Your task to perform on an android device: Search for "razer huntsman" on walmart.com, select the first entry, add it to the cart, then select checkout. Image 0: 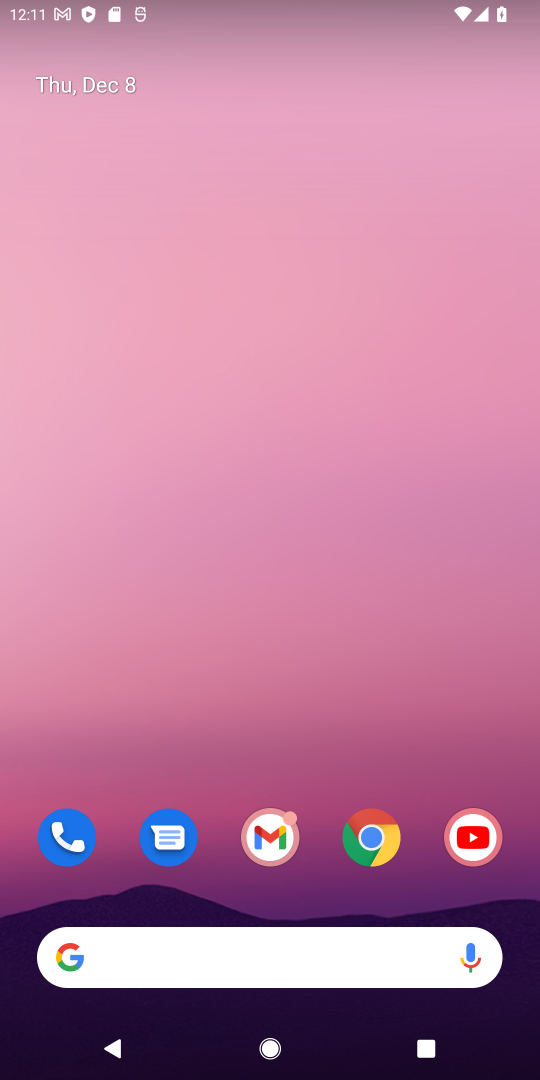
Step 0: click (366, 840)
Your task to perform on an android device: Search for "razer huntsman" on walmart.com, select the first entry, add it to the cart, then select checkout. Image 1: 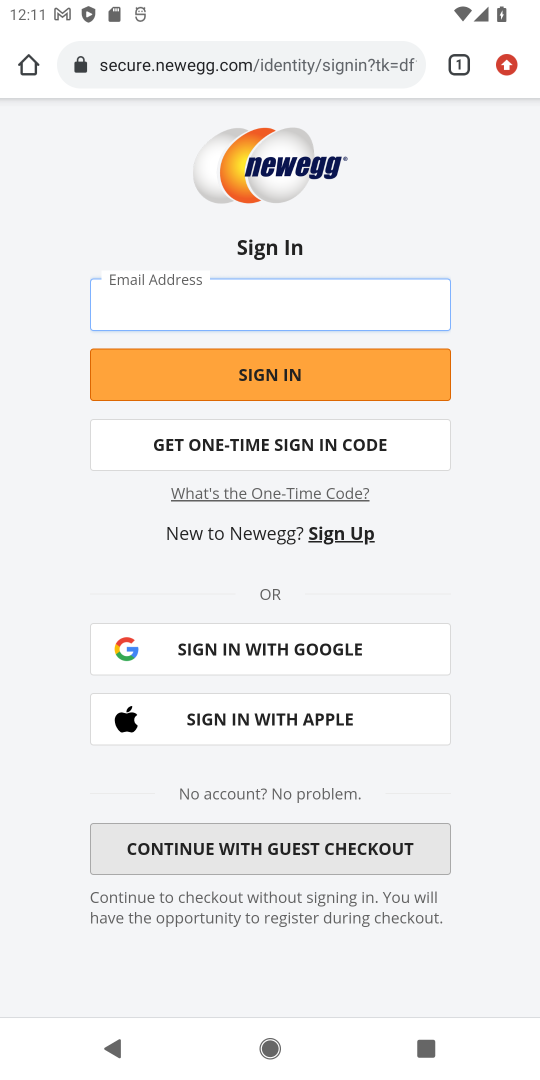
Step 1: click (129, 73)
Your task to perform on an android device: Search for "razer huntsman" on walmart.com, select the first entry, add it to the cart, then select checkout. Image 2: 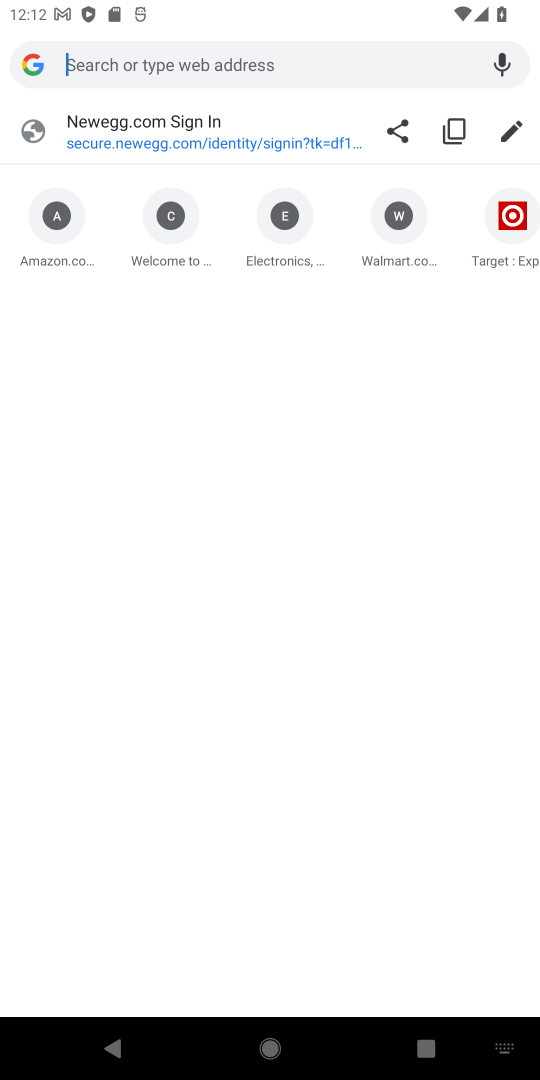
Step 2: type "walmart"
Your task to perform on an android device: Search for "razer huntsman" on walmart.com, select the first entry, add it to the cart, then select checkout. Image 3: 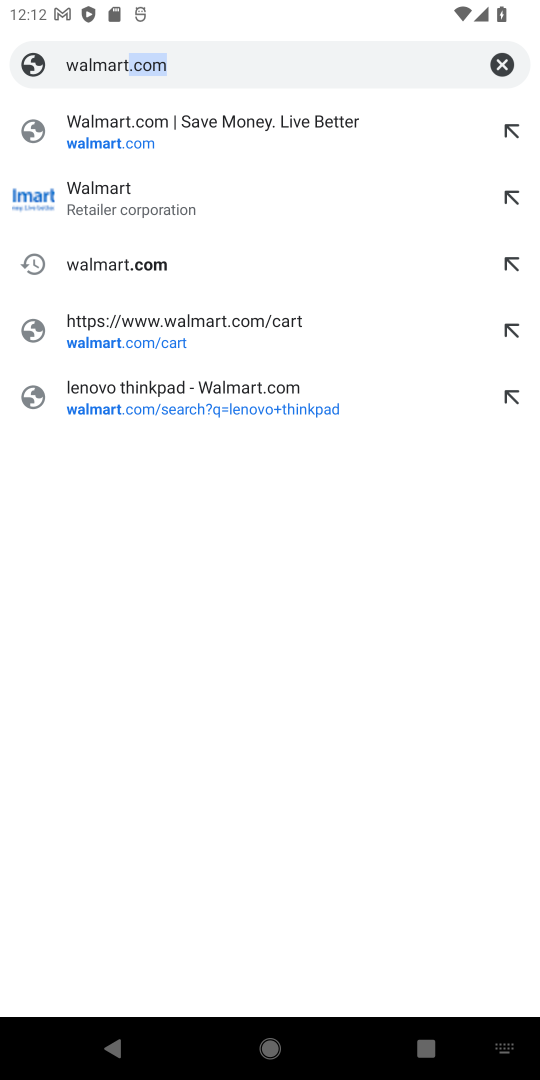
Step 3: press enter
Your task to perform on an android device: Search for "razer huntsman" on walmart.com, select the first entry, add it to the cart, then select checkout. Image 4: 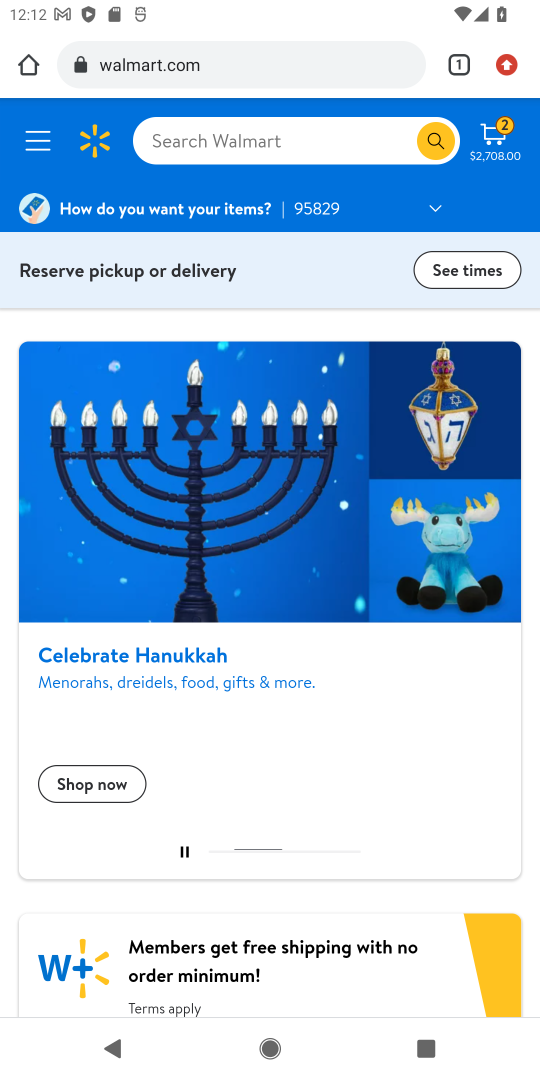
Step 4: click (233, 125)
Your task to perform on an android device: Search for "razer huntsman" on walmart.com, select the first entry, add it to the cart, then select checkout. Image 5: 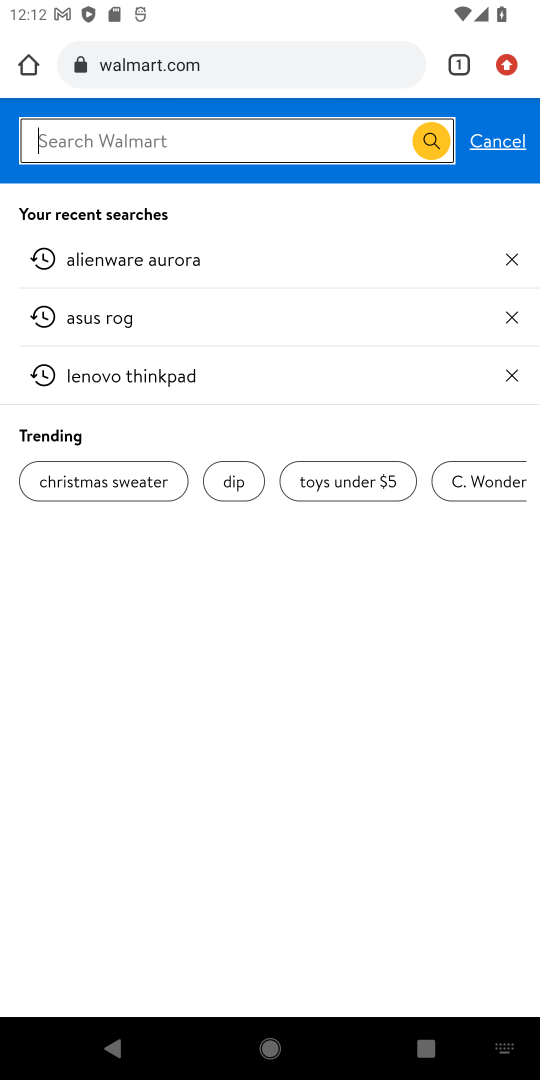
Step 5: type "razer huntsman"
Your task to perform on an android device: Search for "razer huntsman" on walmart.com, select the first entry, add it to the cart, then select checkout. Image 6: 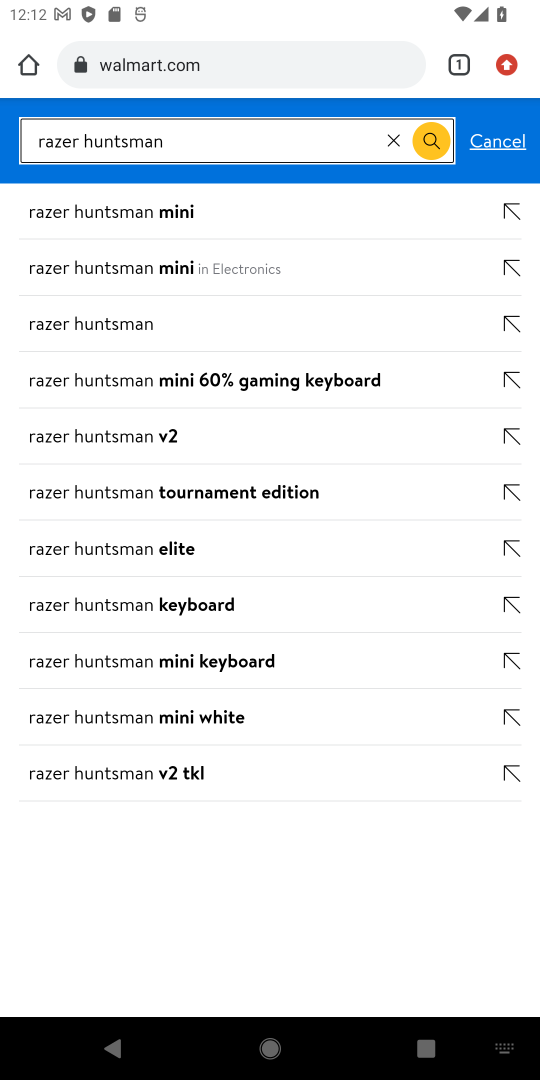
Step 6: press enter
Your task to perform on an android device: Search for "razer huntsman" on walmart.com, select the first entry, add it to the cart, then select checkout. Image 7: 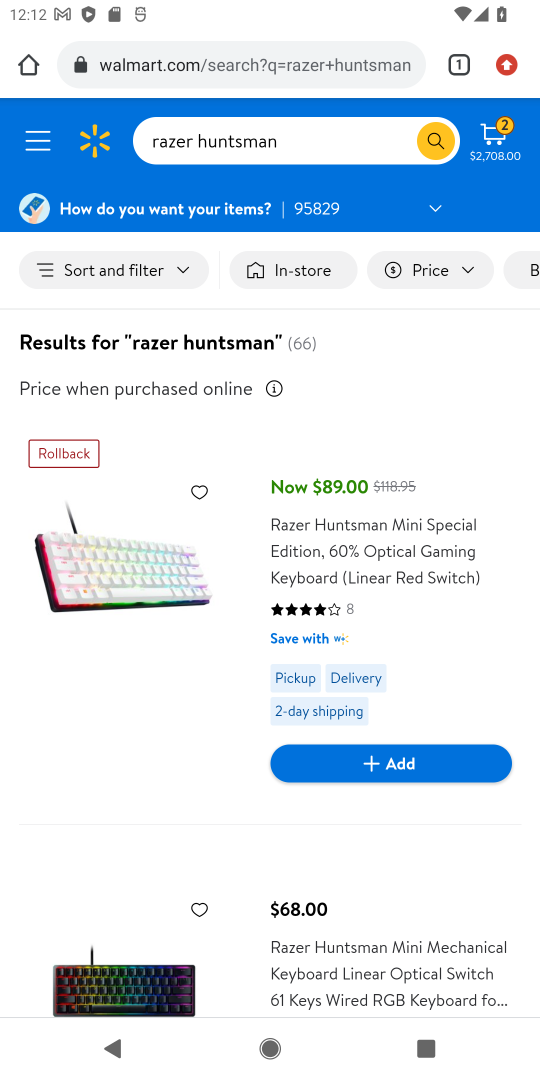
Step 7: click (407, 764)
Your task to perform on an android device: Search for "razer huntsman" on walmart.com, select the first entry, add it to the cart, then select checkout. Image 8: 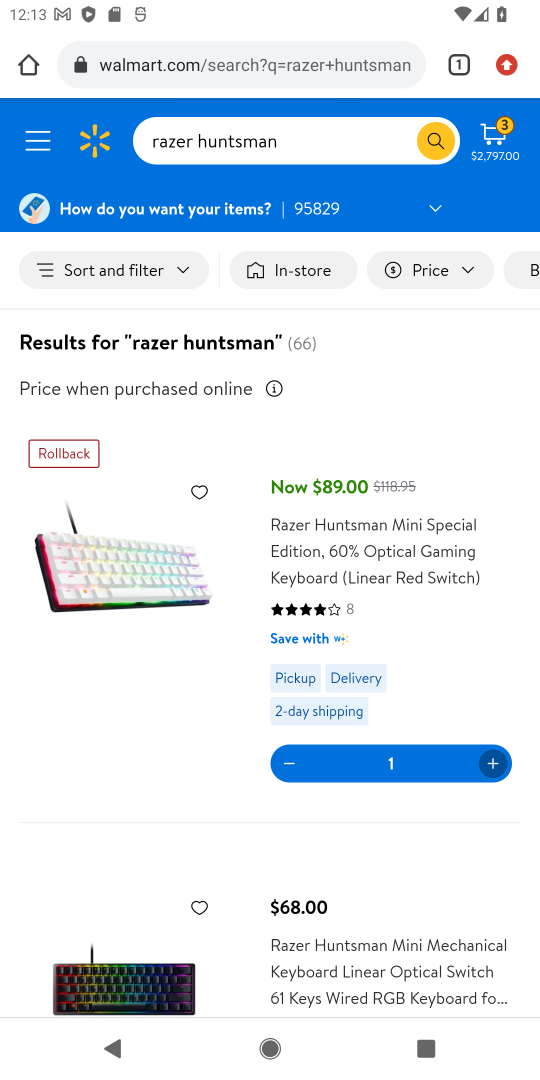
Step 8: click (480, 140)
Your task to perform on an android device: Search for "razer huntsman" on walmart.com, select the first entry, add it to the cart, then select checkout. Image 9: 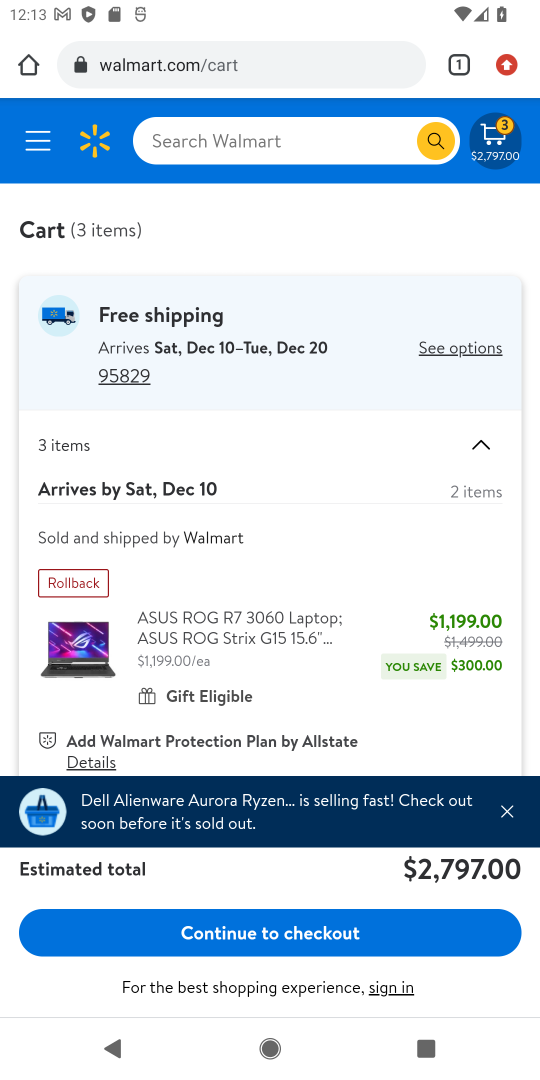
Step 9: click (278, 939)
Your task to perform on an android device: Search for "razer huntsman" on walmart.com, select the first entry, add it to the cart, then select checkout. Image 10: 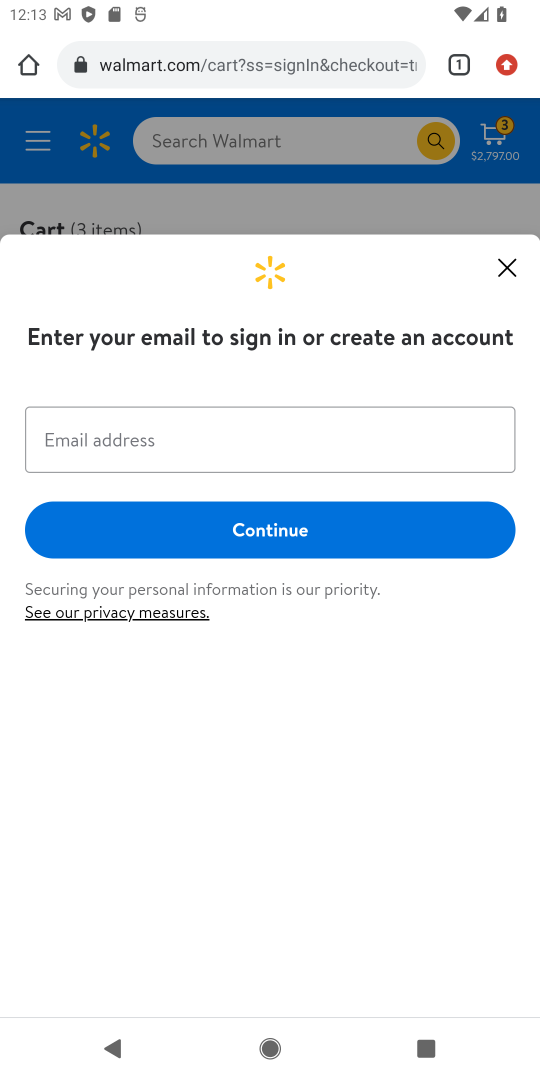
Step 10: task complete